Your task to perform on an android device: Go to sound settings Image 0: 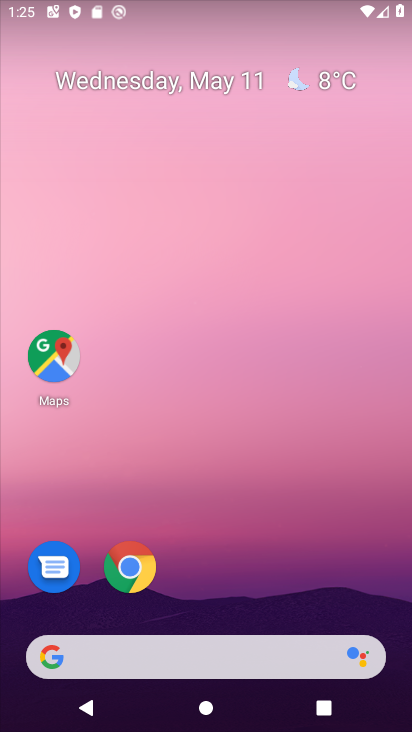
Step 0: drag from (358, 616) to (249, 212)
Your task to perform on an android device: Go to sound settings Image 1: 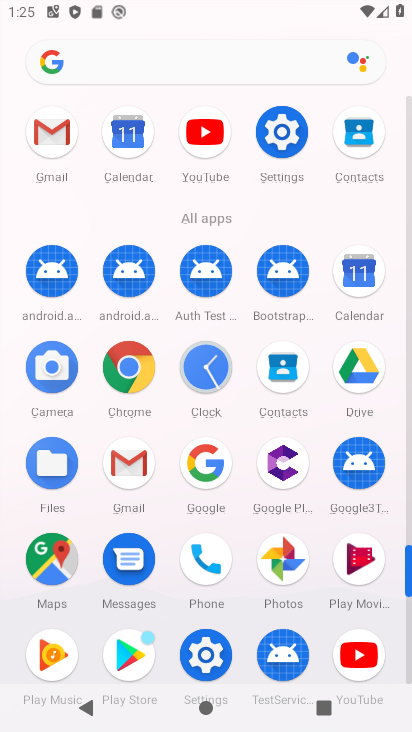
Step 1: click (275, 139)
Your task to perform on an android device: Go to sound settings Image 2: 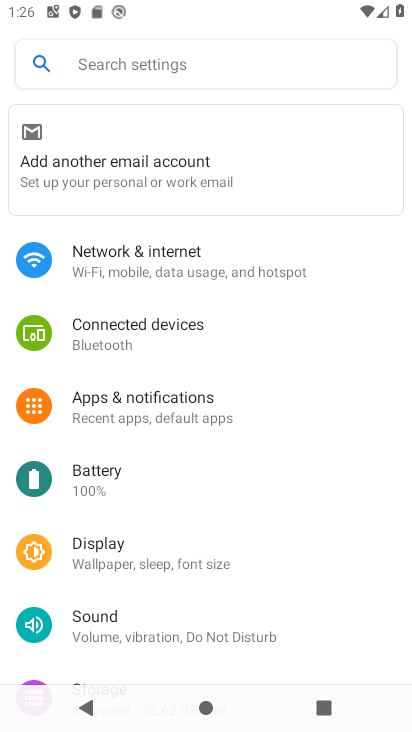
Step 2: click (241, 627)
Your task to perform on an android device: Go to sound settings Image 3: 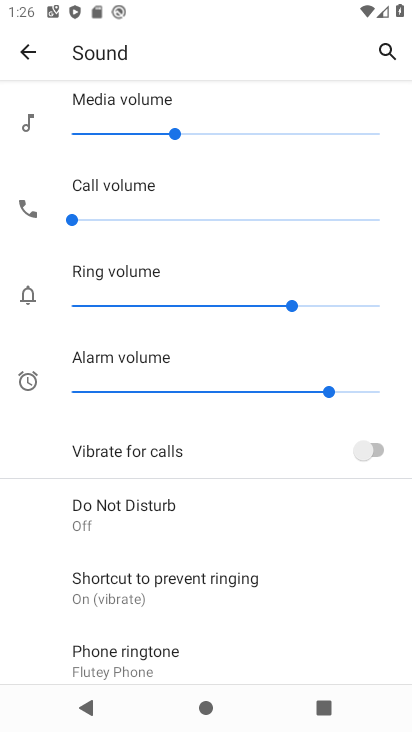
Step 3: task complete